Your task to perform on an android device: change the clock display to show seconds Image 0: 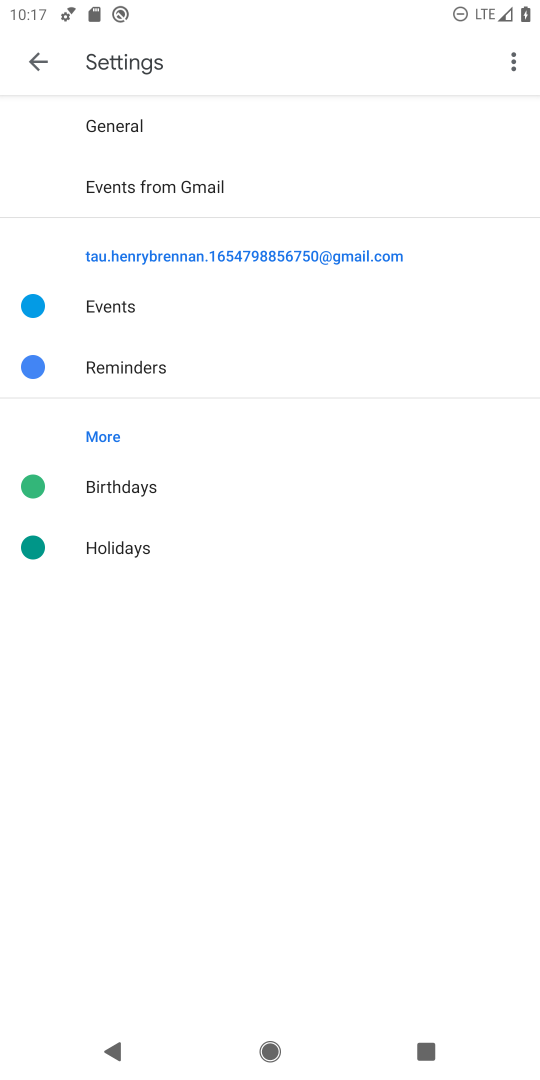
Step 0: press home button
Your task to perform on an android device: change the clock display to show seconds Image 1: 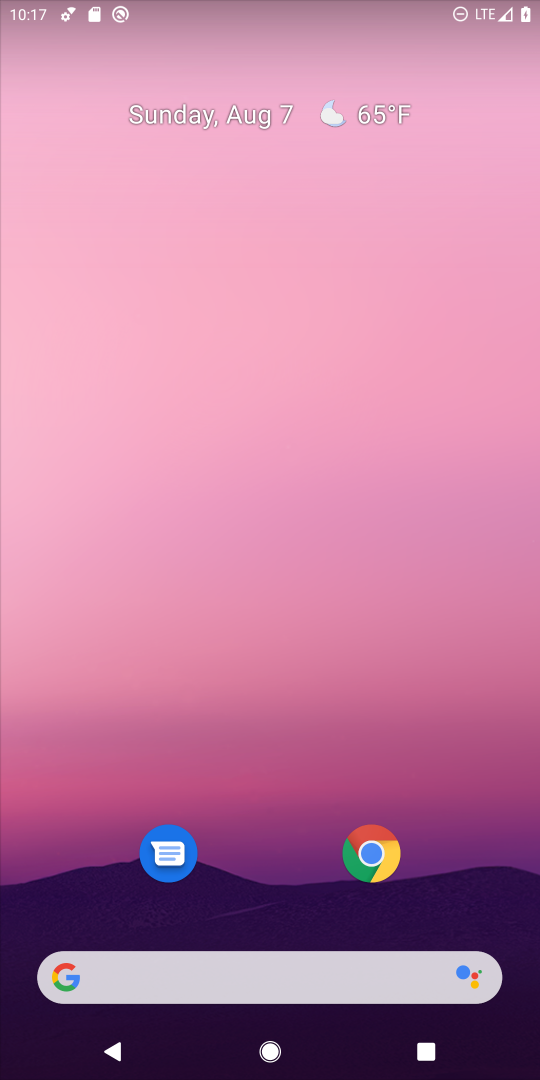
Step 1: drag from (272, 887) to (287, 374)
Your task to perform on an android device: change the clock display to show seconds Image 2: 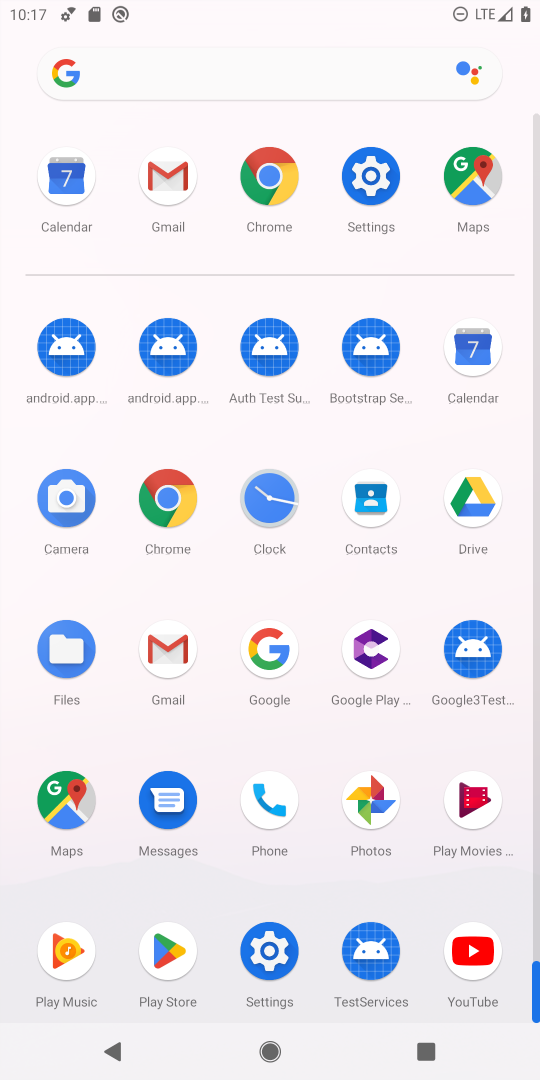
Step 2: click (274, 507)
Your task to perform on an android device: change the clock display to show seconds Image 3: 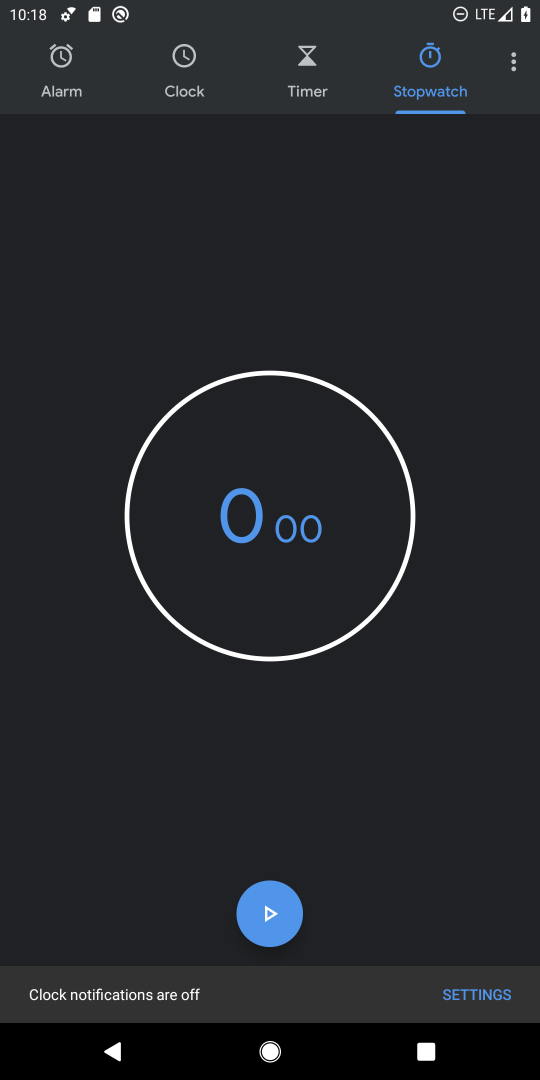
Step 3: click (514, 61)
Your task to perform on an android device: change the clock display to show seconds Image 4: 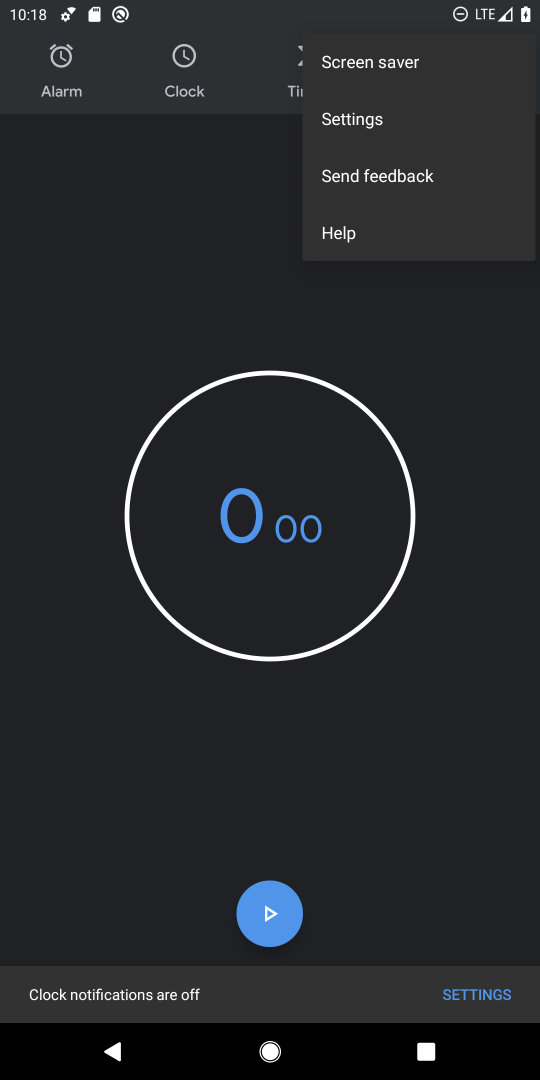
Step 4: click (384, 124)
Your task to perform on an android device: change the clock display to show seconds Image 5: 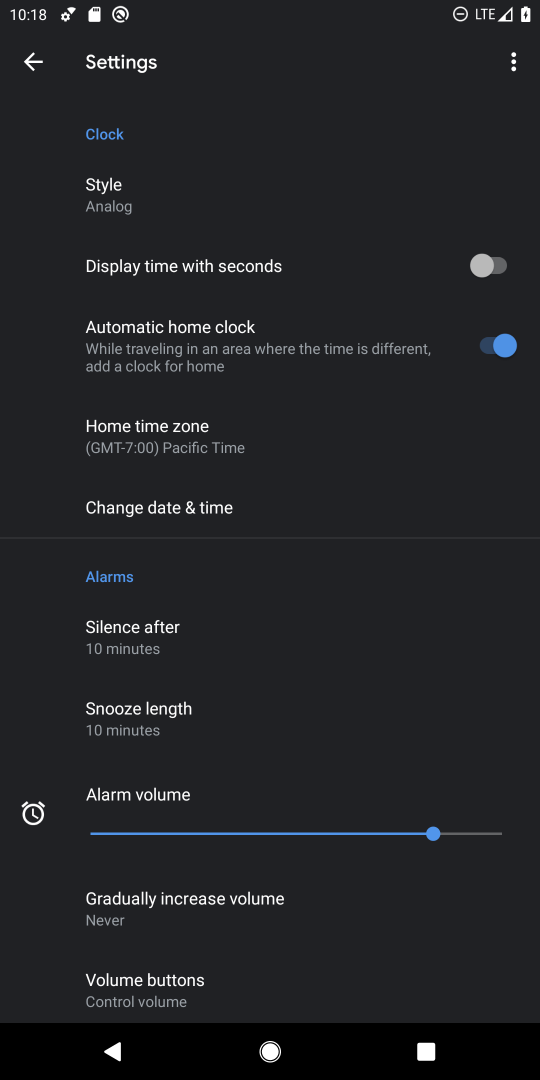
Step 5: click (124, 189)
Your task to perform on an android device: change the clock display to show seconds Image 6: 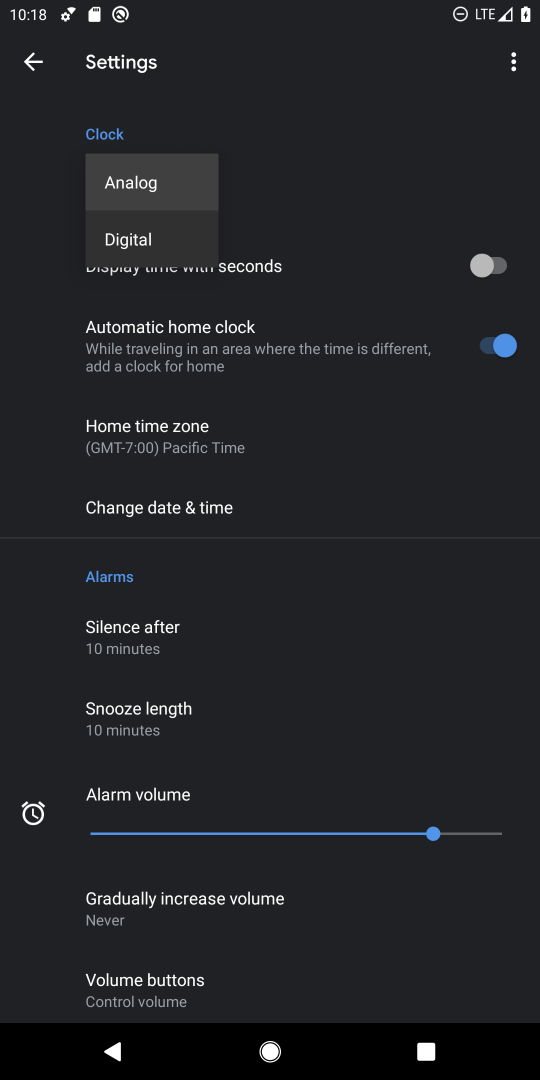
Step 6: click (124, 247)
Your task to perform on an android device: change the clock display to show seconds Image 7: 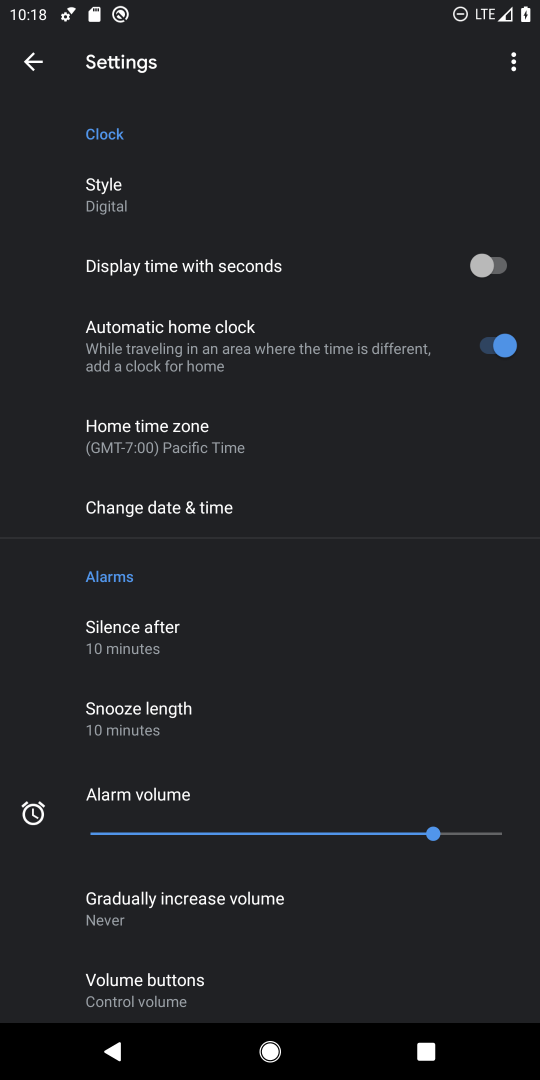
Step 7: click (124, 197)
Your task to perform on an android device: change the clock display to show seconds Image 8: 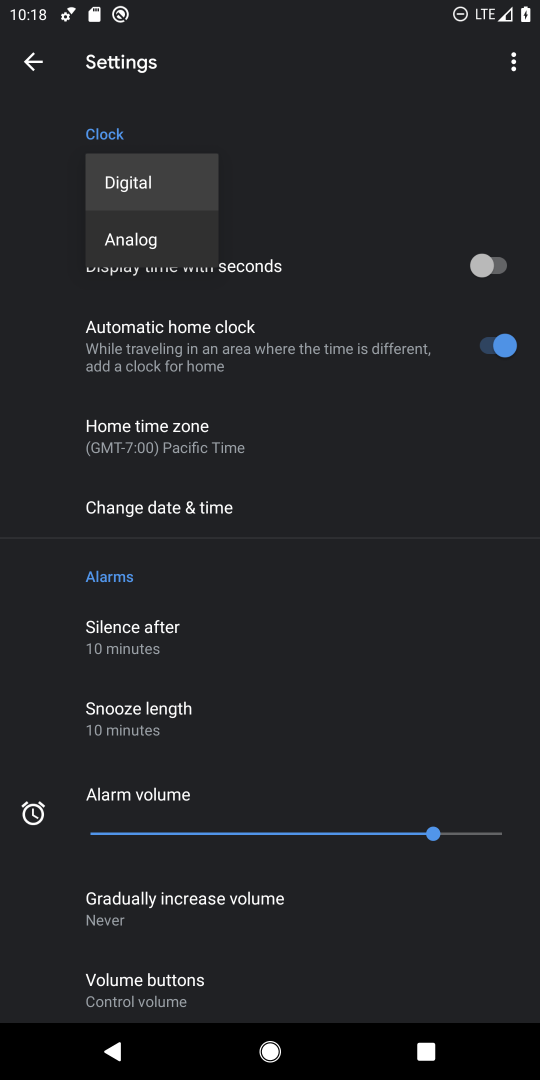
Step 8: click (318, 146)
Your task to perform on an android device: change the clock display to show seconds Image 9: 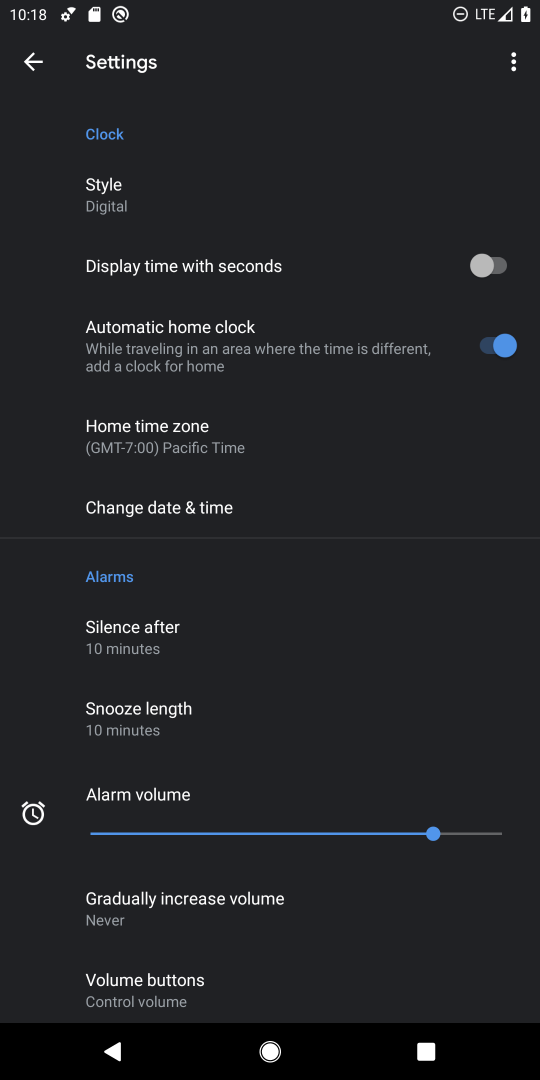
Step 9: click (486, 250)
Your task to perform on an android device: change the clock display to show seconds Image 10: 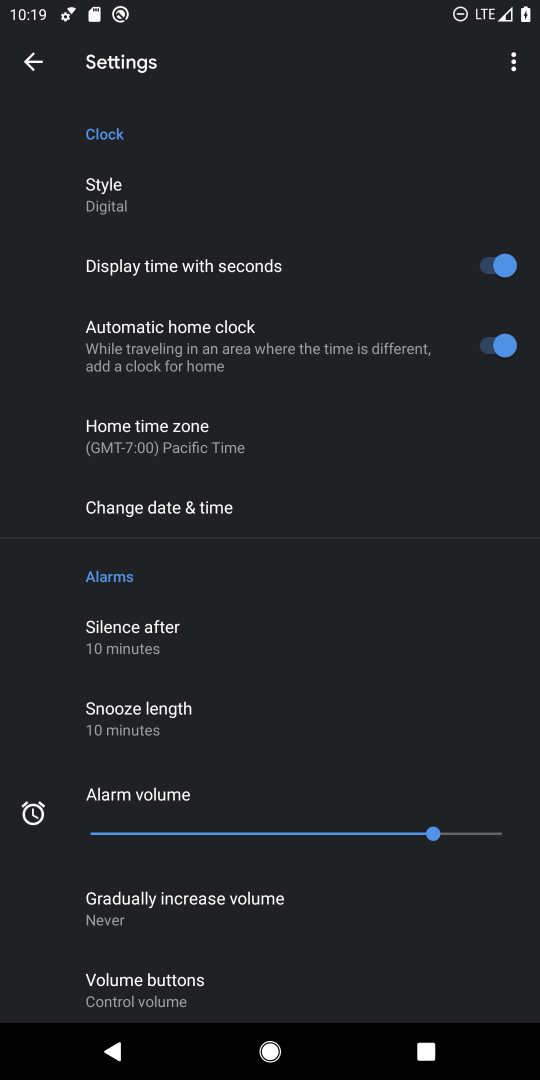
Step 10: task complete